Your task to perform on an android device: Open Chrome and go to settings Image 0: 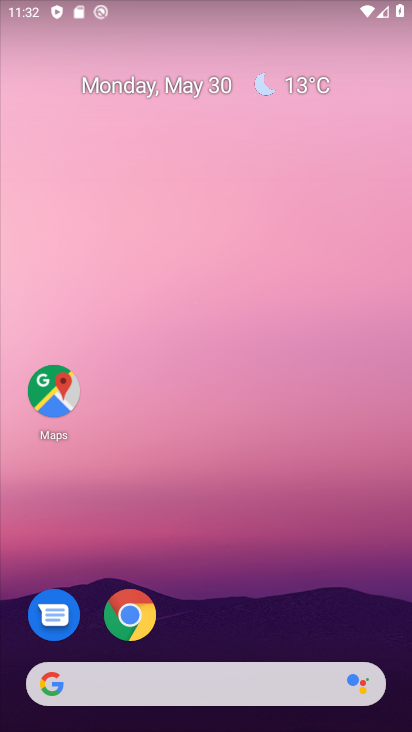
Step 0: click (141, 618)
Your task to perform on an android device: Open Chrome and go to settings Image 1: 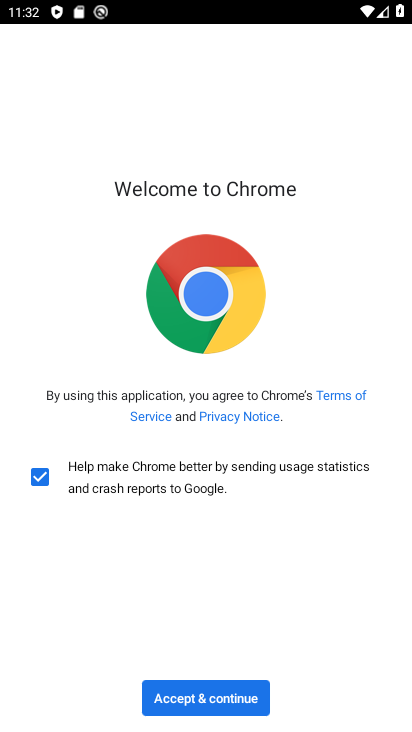
Step 1: click (230, 707)
Your task to perform on an android device: Open Chrome and go to settings Image 2: 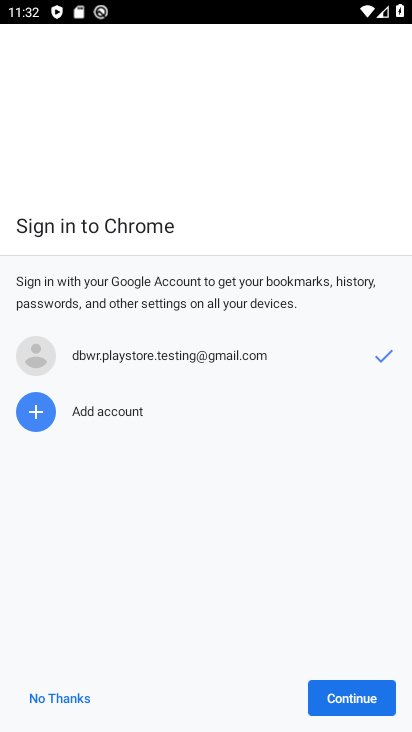
Step 2: click (353, 700)
Your task to perform on an android device: Open Chrome and go to settings Image 3: 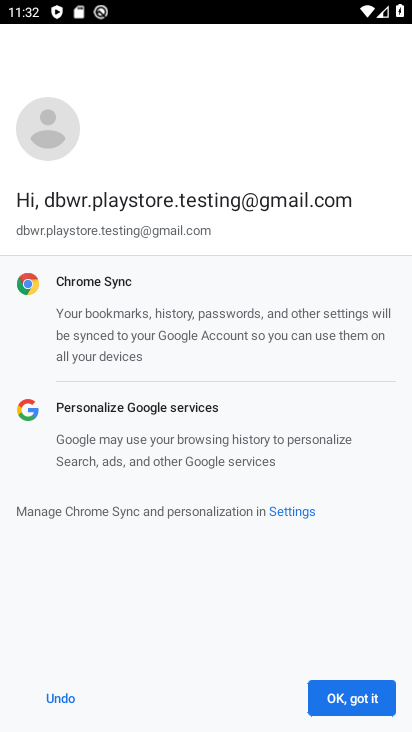
Step 3: click (353, 700)
Your task to perform on an android device: Open Chrome and go to settings Image 4: 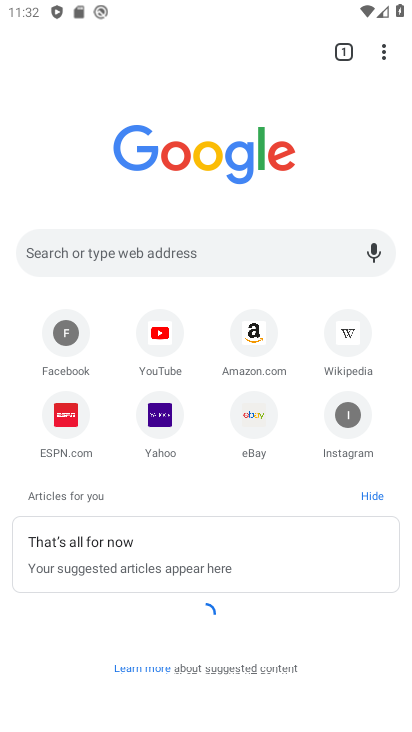
Step 4: task complete